Your task to perform on an android device: turn off data saver in the chrome app Image 0: 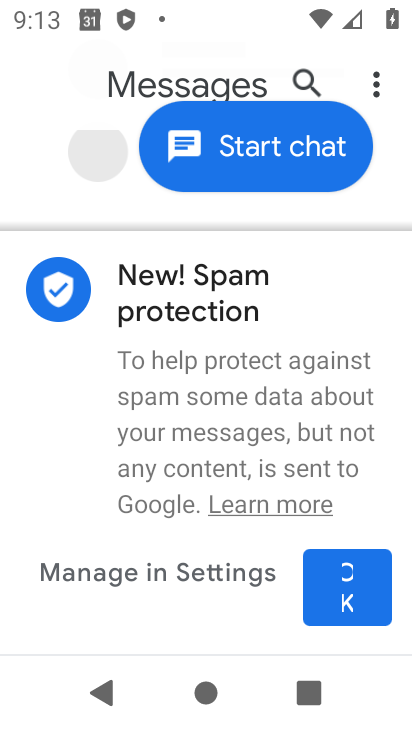
Step 0: press home button
Your task to perform on an android device: turn off data saver in the chrome app Image 1: 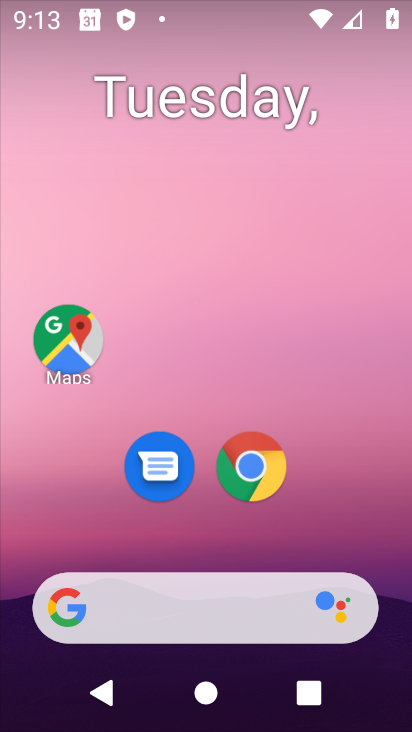
Step 1: click (260, 467)
Your task to perform on an android device: turn off data saver in the chrome app Image 2: 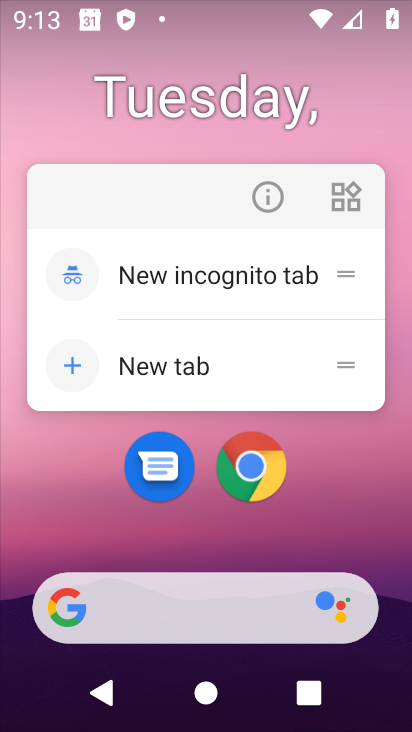
Step 2: click (249, 471)
Your task to perform on an android device: turn off data saver in the chrome app Image 3: 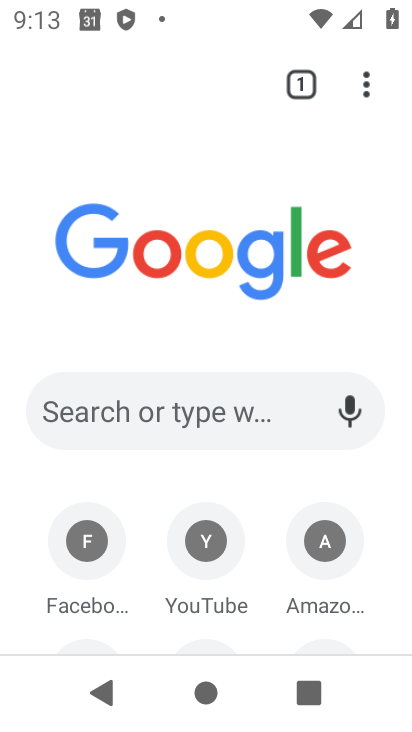
Step 3: drag from (372, 77) to (128, 524)
Your task to perform on an android device: turn off data saver in the chrome app Image 4: 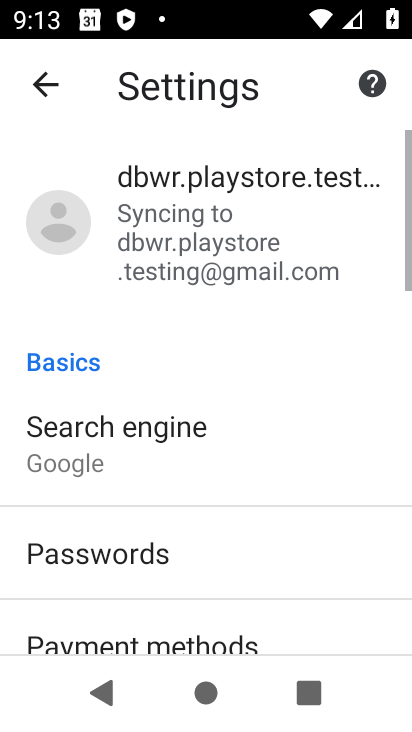
Step 4: drag from (300, 586) to (377, 184)
Your task to perform on an android device: turn off data saver in the chrome app Image 5: 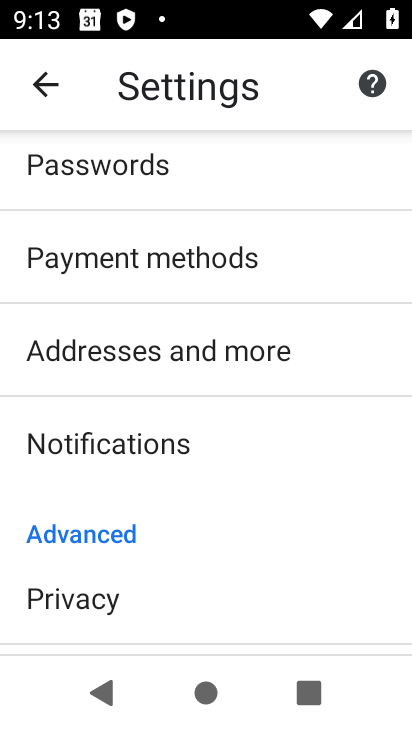
Step 5: drag from (194, 527) to (309, 217)
Your task to perform on an android device: turn off data saver in the chrome app Image 6: 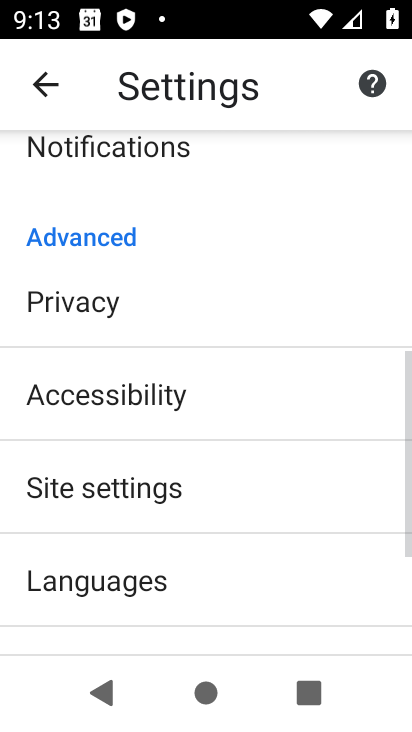
Step 6: drag from (249, 496) to (267, 320)
Your task to perform on an android device: turn off data saver in the chrome app Image 7: 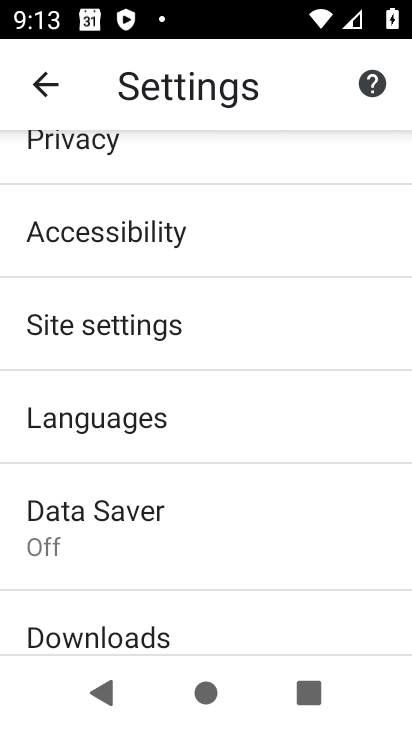
Step 7: click (111, 508)
Your task to perform on an android device: turn off data saver in the chrome app Image 8: 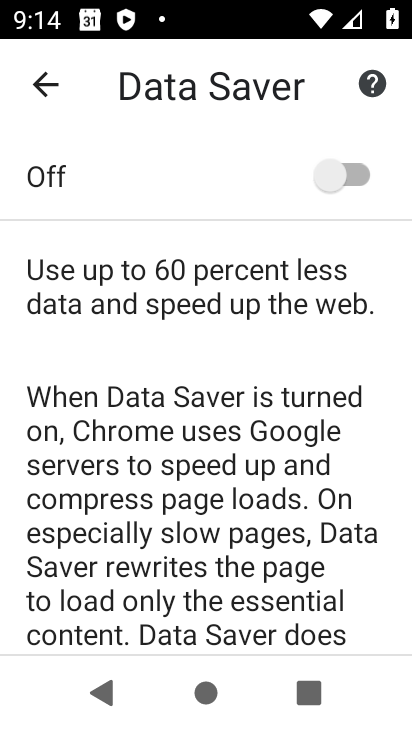
Step 8: task complete